Your task to perform on an android device: open wifi settings Image 0: 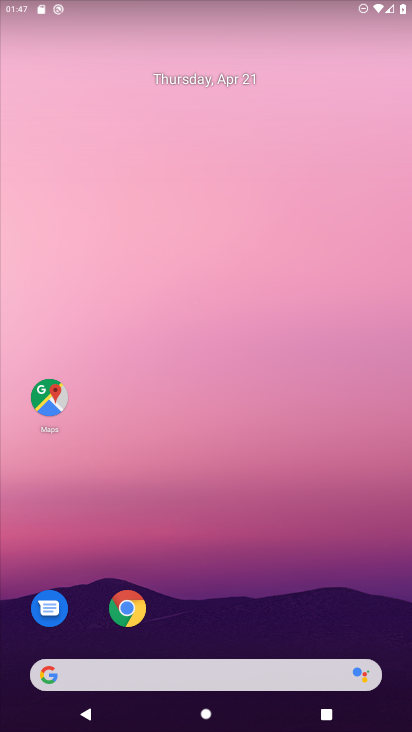
Step 0: drag from (239, 598) to (227, 178)
Your task to perform on an android device: open wifi settings Image 1: 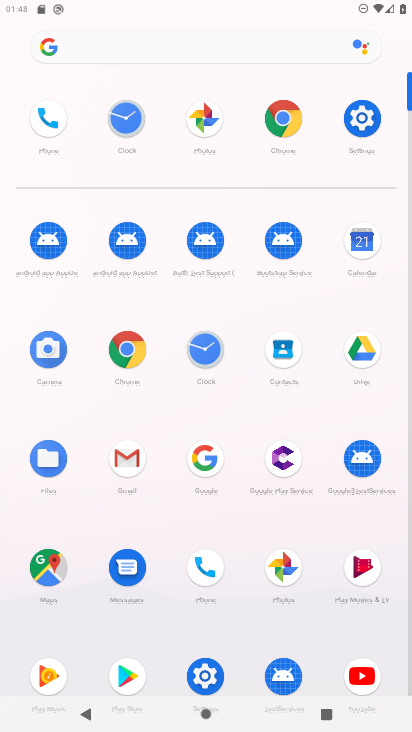
Step 1: click (361, 122)
Your task to perform on an android device: open wifi settings Image 2: 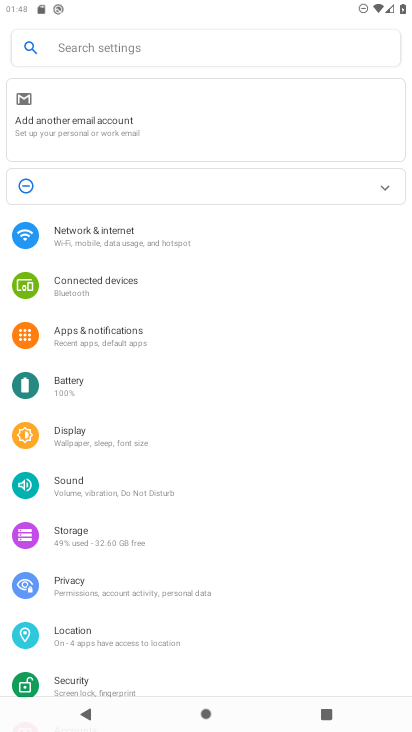
Step 2: click (106, 144)
Your task to perform on an android device: open wifi settings Image 3: 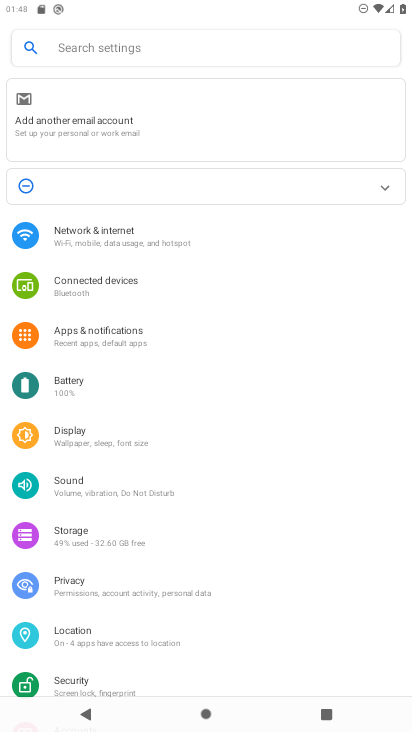
Step 3: click (109, 251)
Your task to perform on an android device: open wifi settings Image 4: 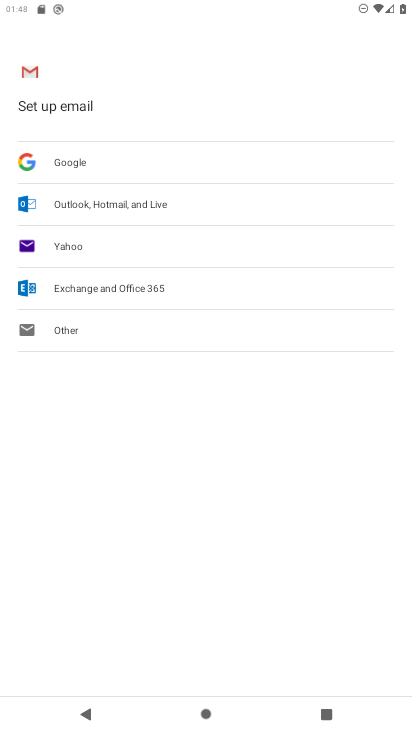
Step 4: click (108, 229)
Your task to perform on an android device: open wifi settings Image 5: 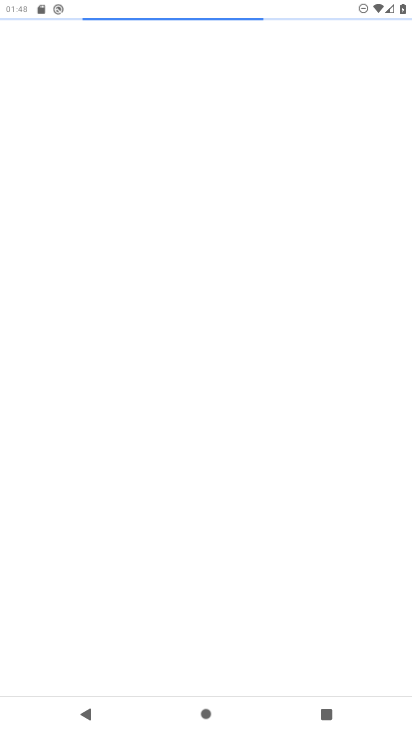
Step 5: press back button
Your task to perform on an android device: open wifi settings Image 6: 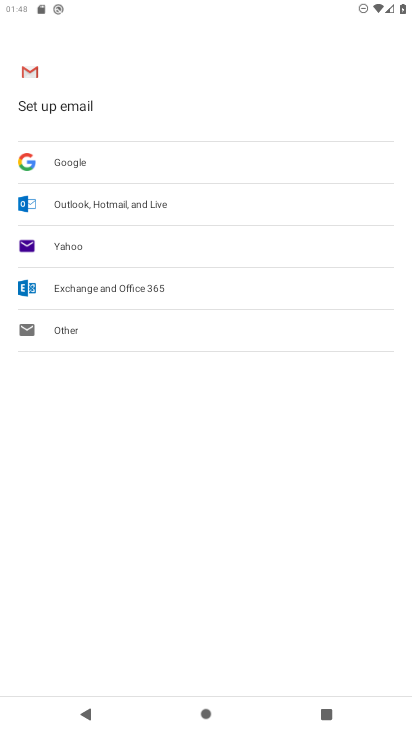
Step 6: press back button
Your task to perform on an android device: open wifi settings Image 7: 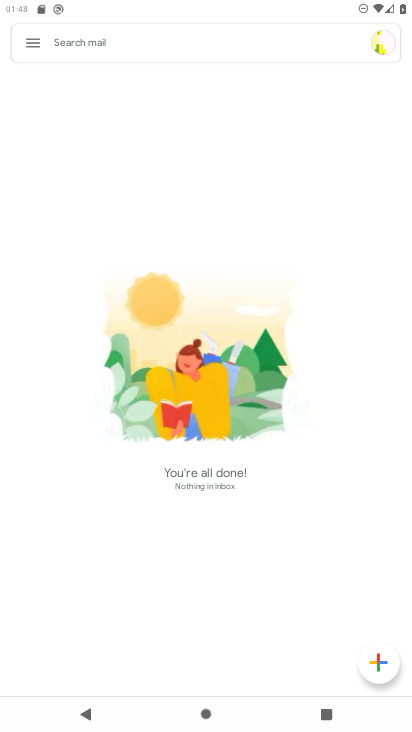
Step 7: press back button
Your task to perform on an android device: open wifi settings Image 8: 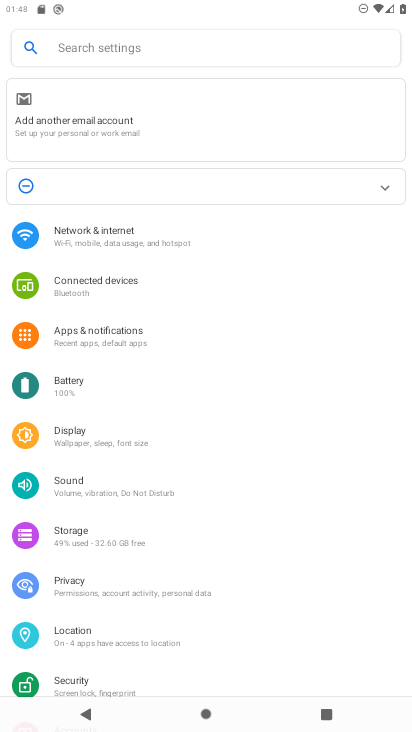
Step 8: click (94, 227)
Your task to perform on an android device: open wifi settings Image 9: 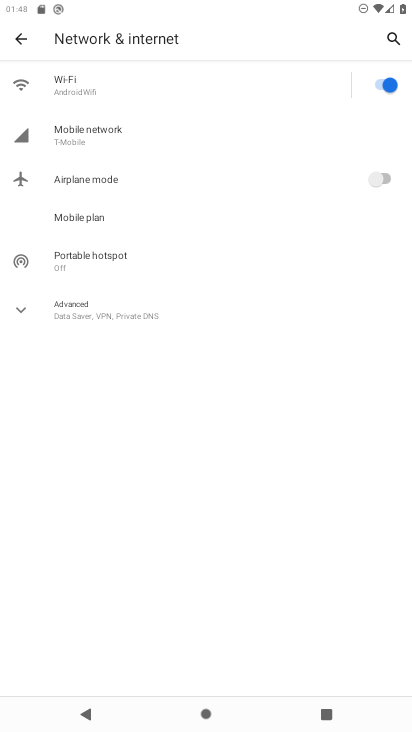
Step 9: click (120, 86)
Your task to perform on an android device: open wifi settings Image 10: 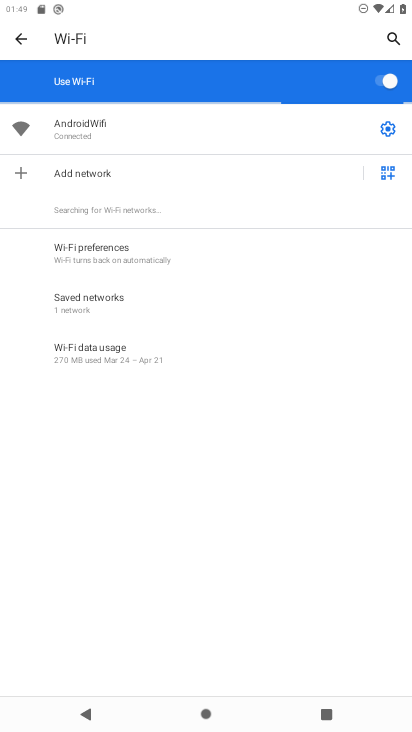
Step 10: task complete